Your task to perform on an android device: visit the assistant section in the google photos Image 0: 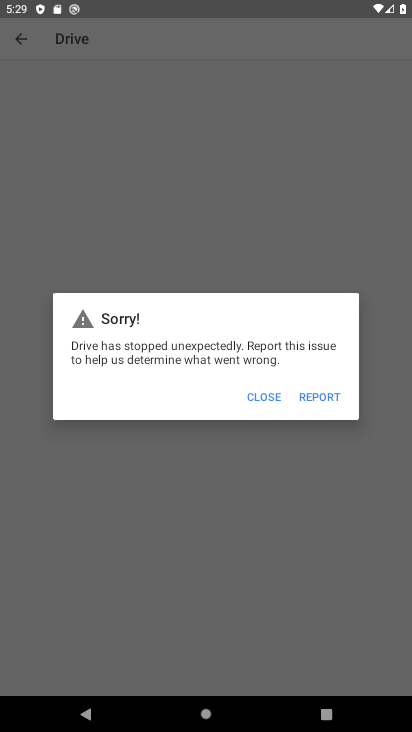
Step 0: press home button
Your task to perform on an android device: visit the assistant section in the google photos Image 1: 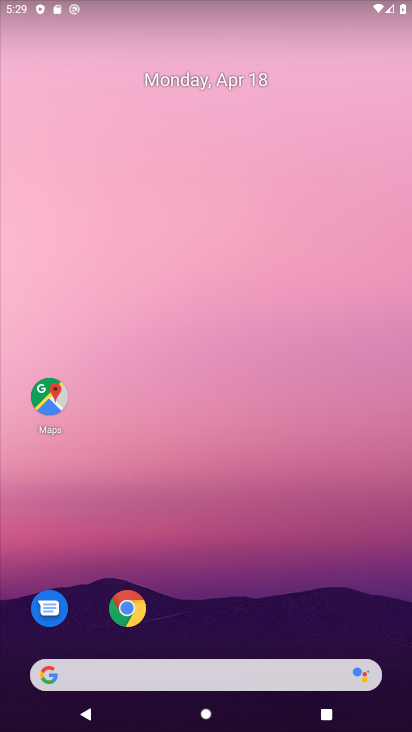
Step 1: drag from (194, 620) to (383, 92)
Your task to perform on an android device: visit the assistant section in the google photos Image 2: 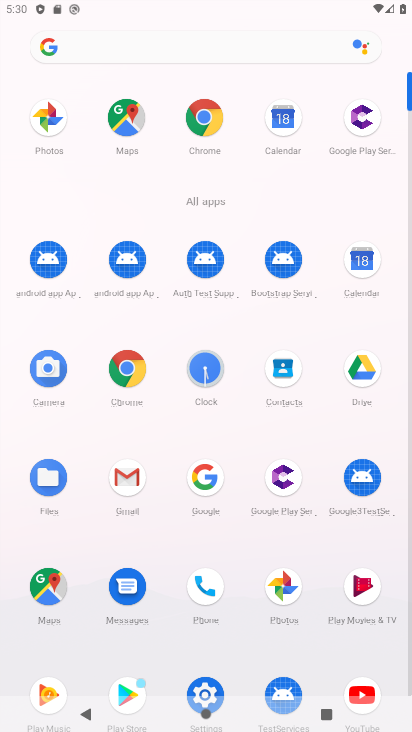
Step 2: click (277, 592)
Your task to perform on an android device: visit the assistant section in the google photos Image 3: 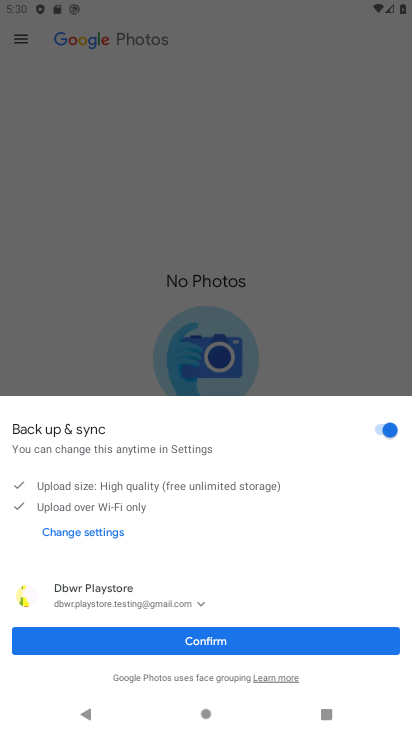
Step 3: click (239, 645)
Your task to perform on an android device: visit the assistant section in the google photos Image 4: 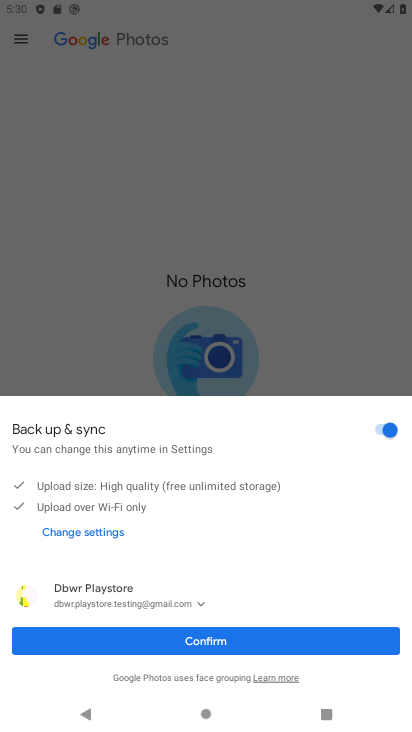
Step 4: click (194, 635)
Your task to perform on an android device: visit the assistant section in the google photos Image 5: 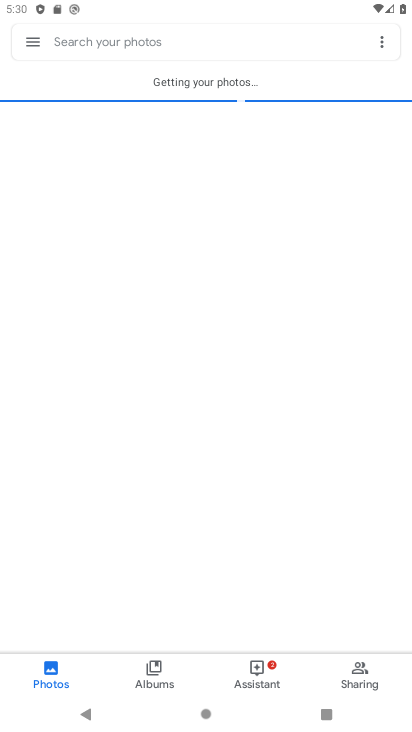
Step 5: click (260, 673)
Your task to perform on an android device: visit the assistant section in the google photos Image 6: 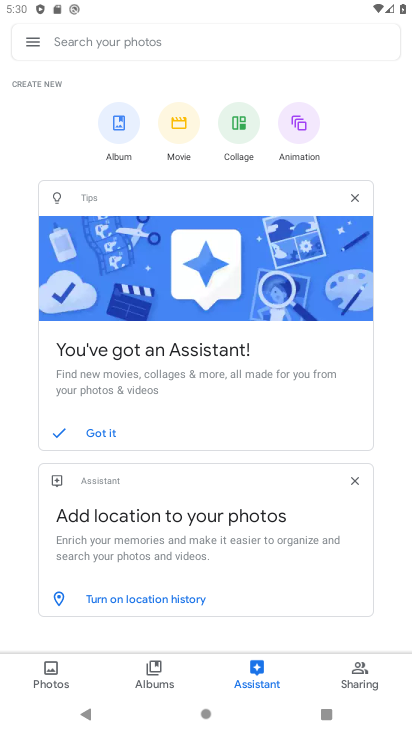
Step 6: task complete